Your task to perform on an android device: turn off priority inbox in the gmail app Image 0: 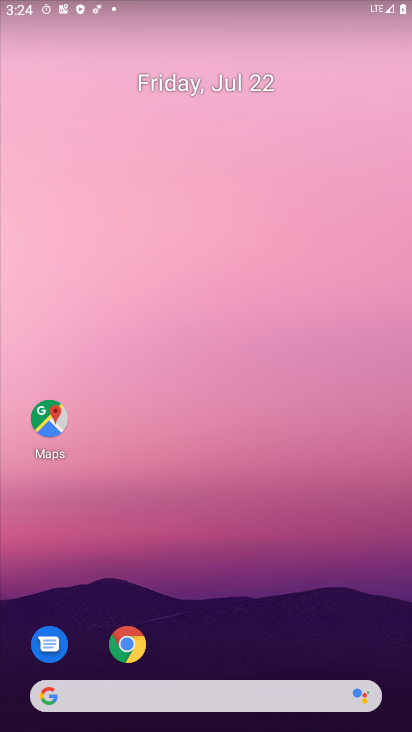
Step 0: press home button
Your task to perform on an android device: turn off priority inbox in the gmail app Image 1: 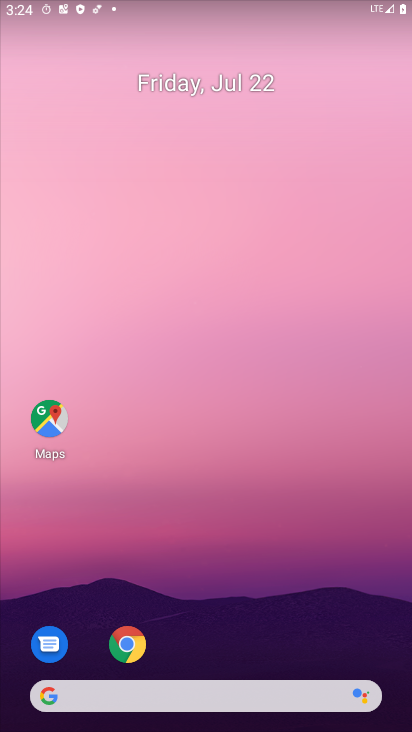
Step 1: drag from (216, 645) to (228, 170)
Your task to perform on an android device: turn off priority inbox in the gmail app Image 2: 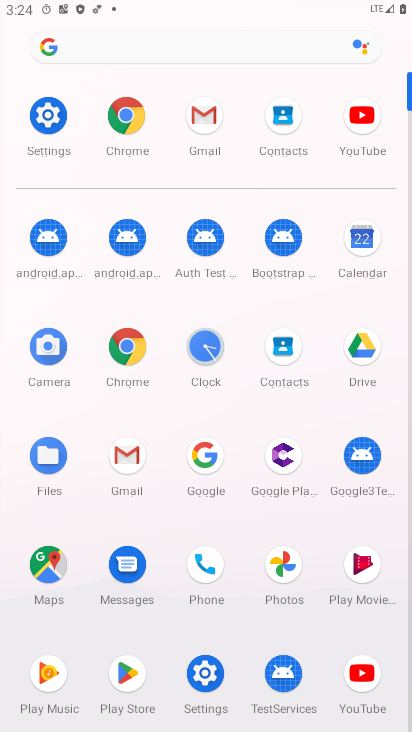
Step 2: click (206, 122)
Your task to perform on an android device: turn off priority inbox in the gmail app Image 3: 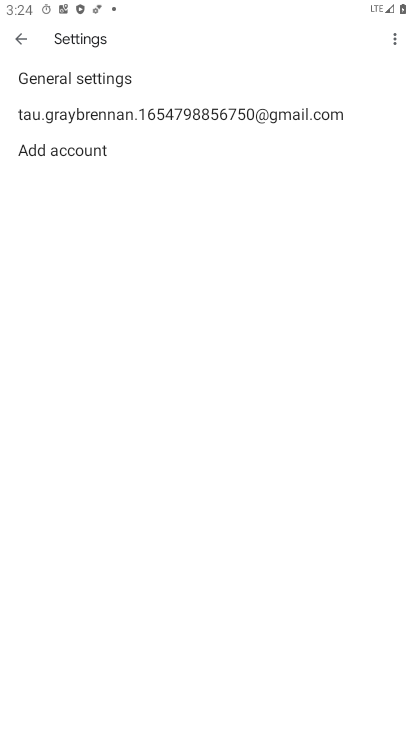
Step 3: click (128, 121)
Your task to perform on an android device: turn off priority inbox in the gmail app Image 4: 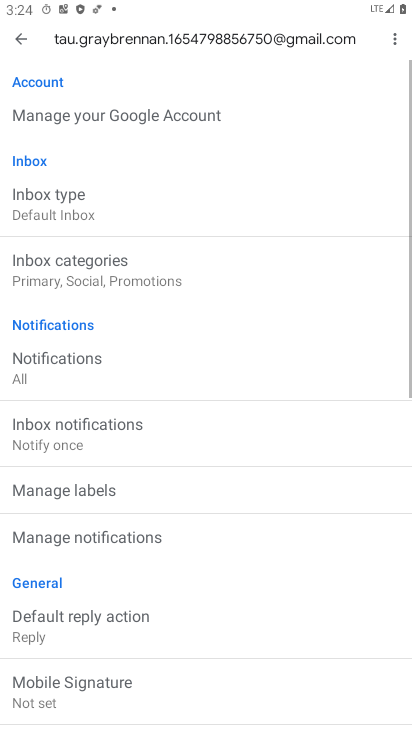
Step 4: click (62, 208)
Your task to perform on an android device: turn off priority inbox in the gmail app Image 5: 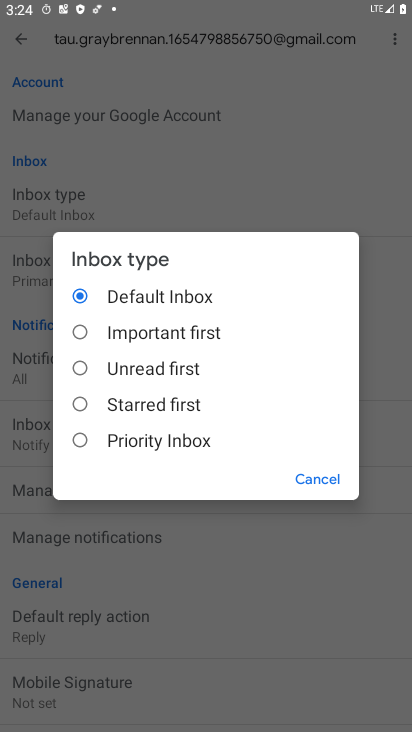
Step 5: task complete